Your task to perform on an android device: open app "PUBG MOBILE" Image 0: 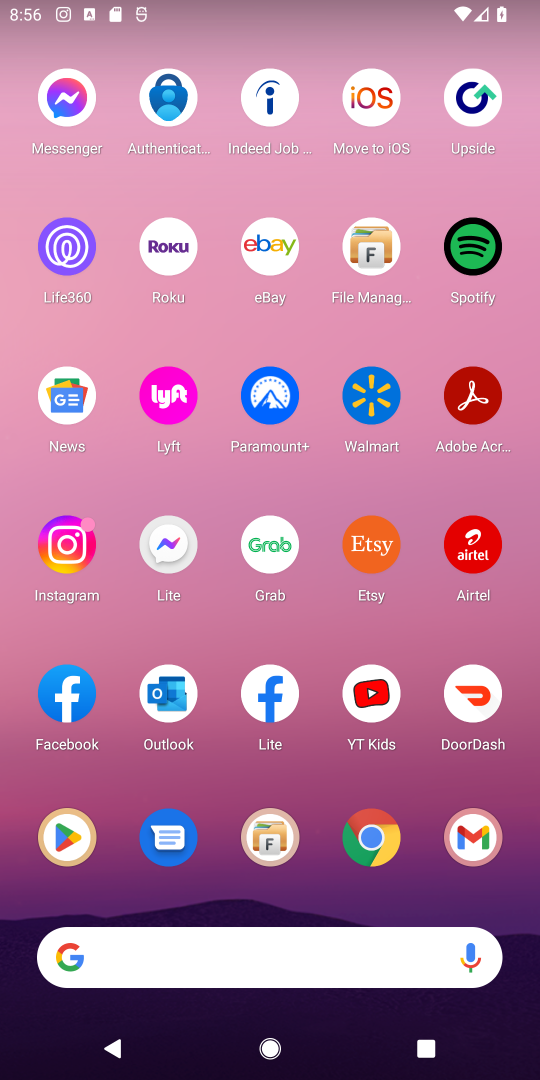
Step 0: click (80, 835)
Your task to perform on an android device: open app "PUBG MOBILE" Image 1: 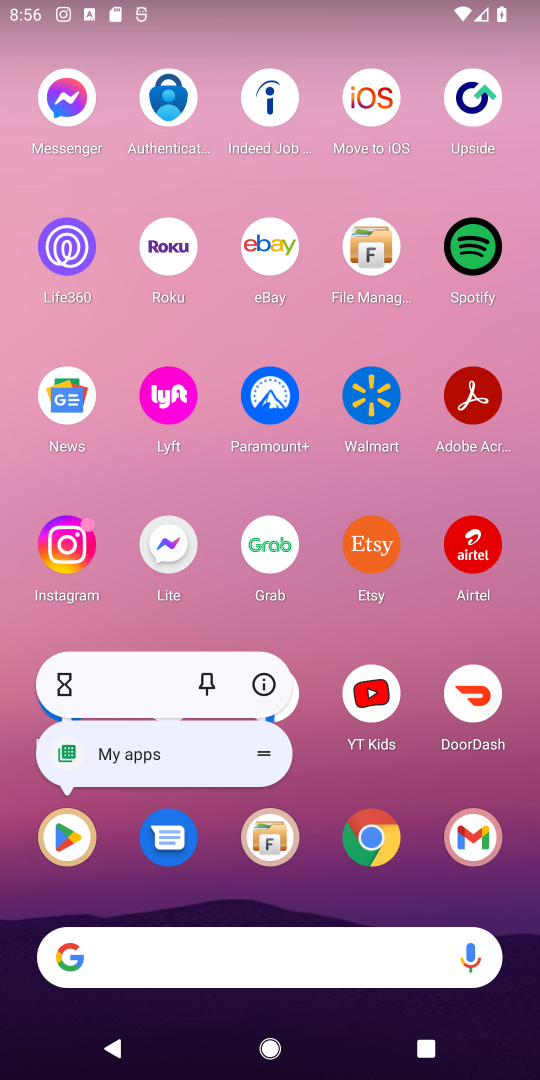
Step 1: click (62, 845)
Your task to perform on an android device: open app "PUBG MOBILE" Image 2: 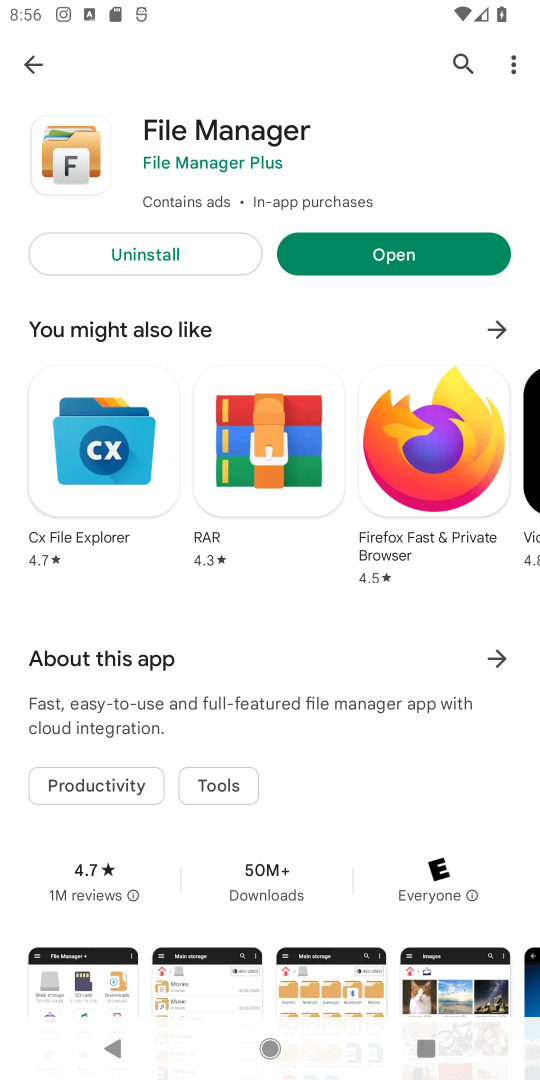
Step 2: click (456, 55)
Your task to perform on an android device: open app "PUBG MOBILE" Image 3: 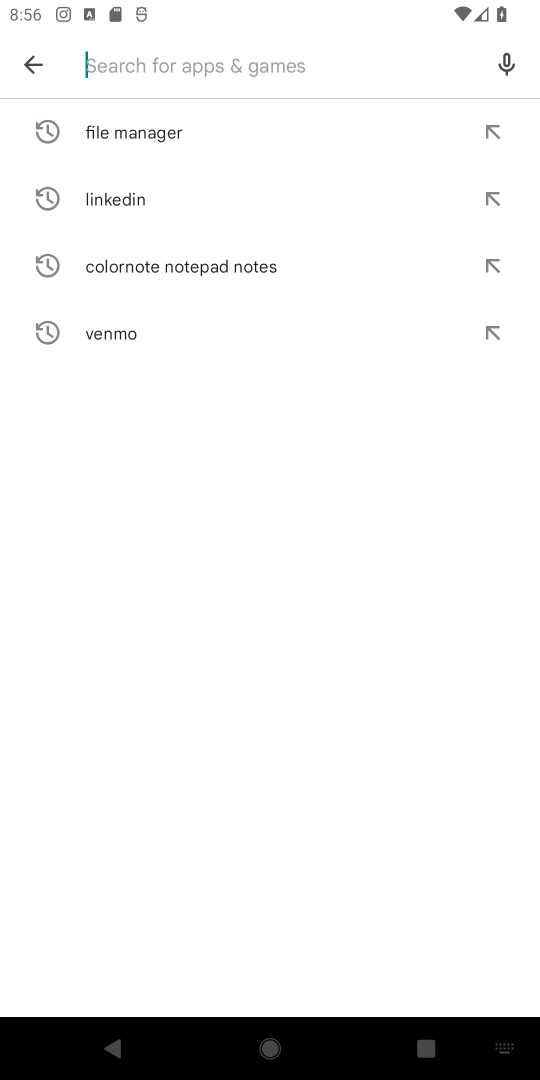
Step 3: type "PUBG MOBILE"
Your task to perform on an android device: open app "PUBG MOBILE" Image 4: 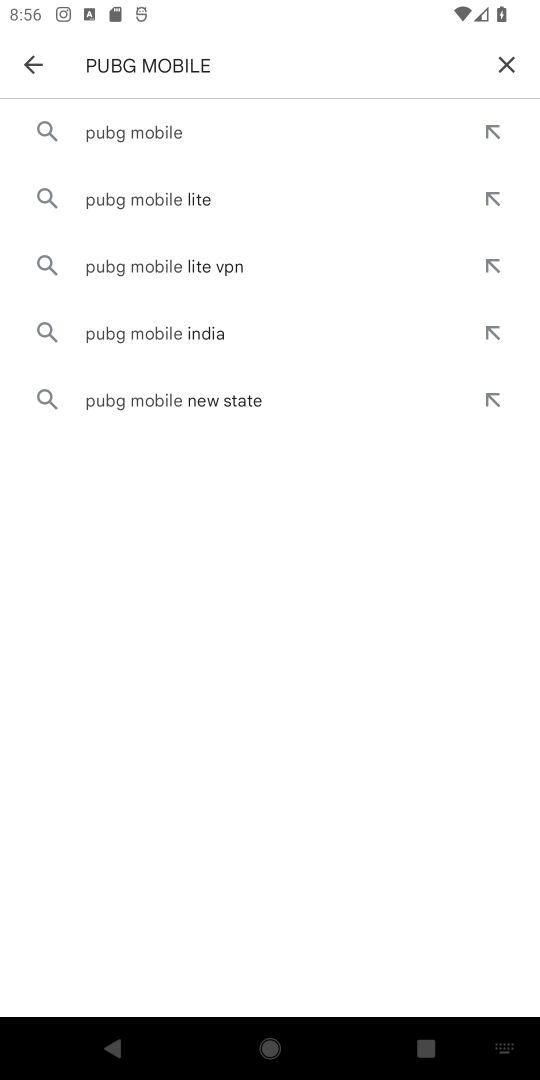
Step 4: click (129, 145)
Your task to perform on an android device: open app "PUBG MOBILE" Image 5: 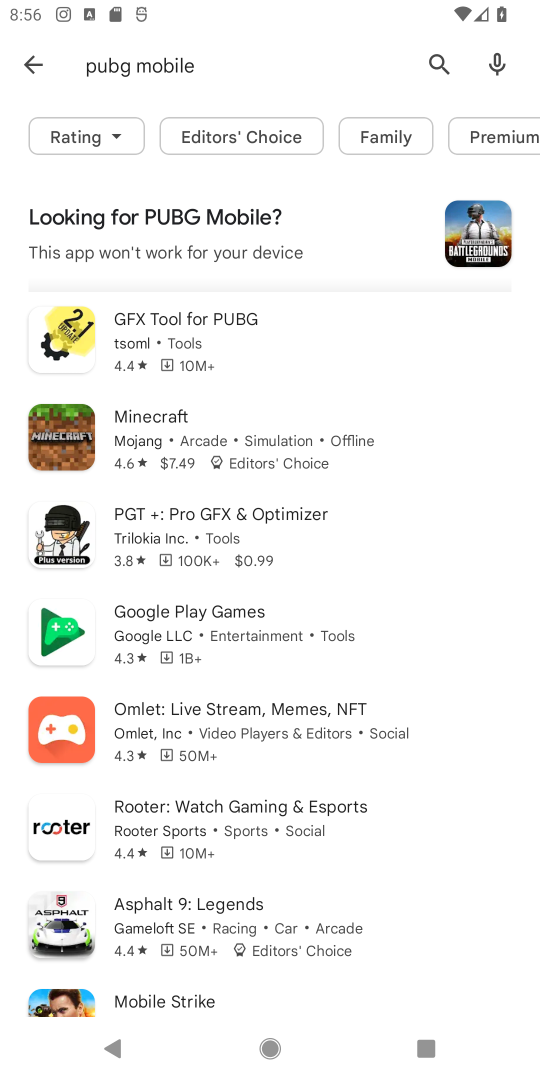
Step 5: task complete